Your task to perform on an android device: change your default location settings in chrome Image 0: 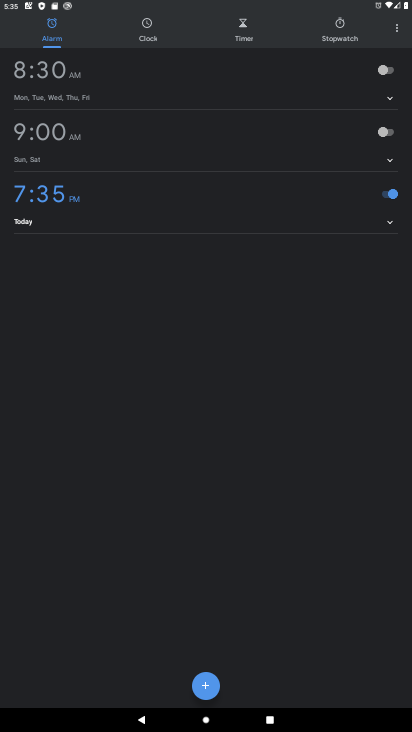
Step 0: press home button
Your task to perform on an android device: change your default location settings in chrome Image 1: 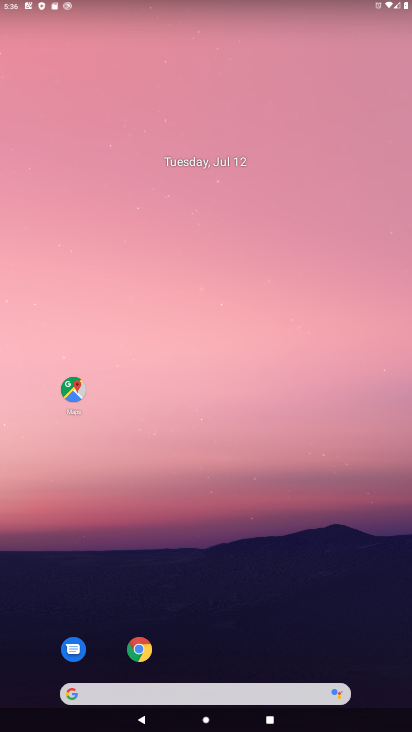
Step 1: click (140, 651)
Your task to perform on an android device: change your default location settings in chrome Image 2: 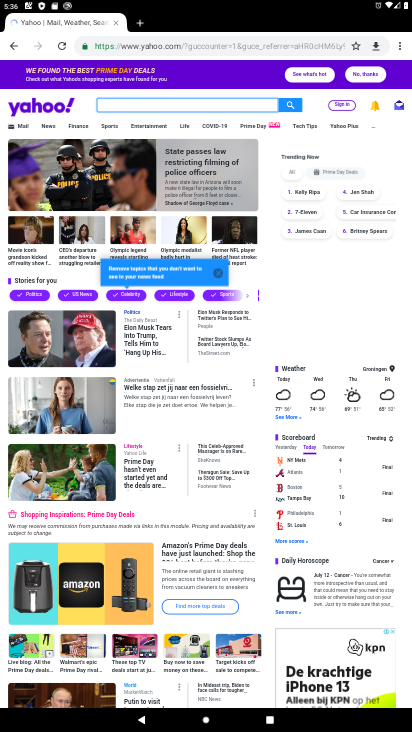
Step 2: click (399, 45)
Your task to perform on an android device: change your default location settings in chrome Image 3: 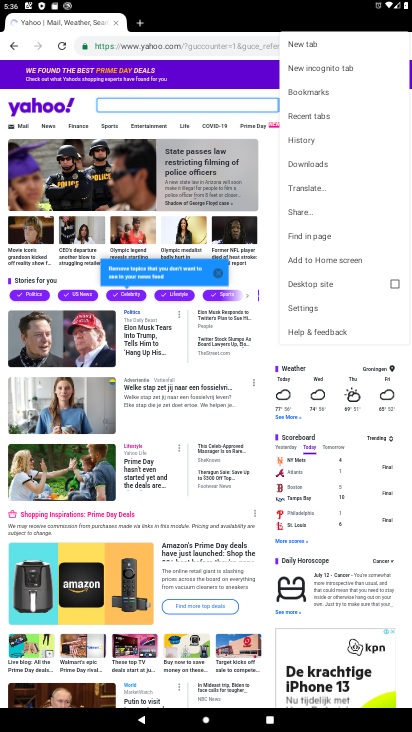
Step 3: click (312, 308)
Your task to perform on an android device: change your default location settings in chrome Image 4: 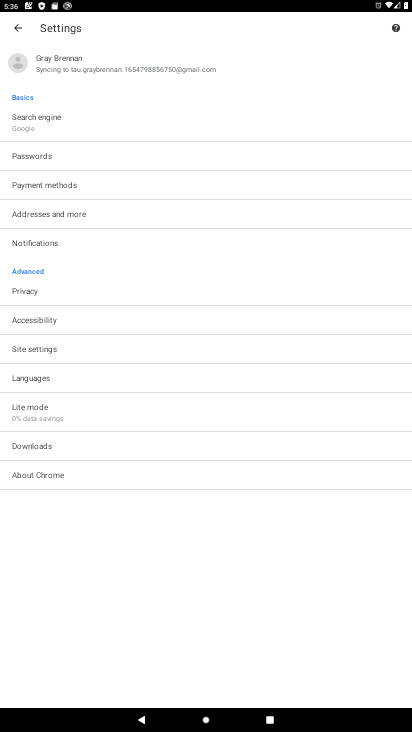
Step 4: click (36, 347)
Your task to perform on an android device: change your default location settings in chrome Image 5: 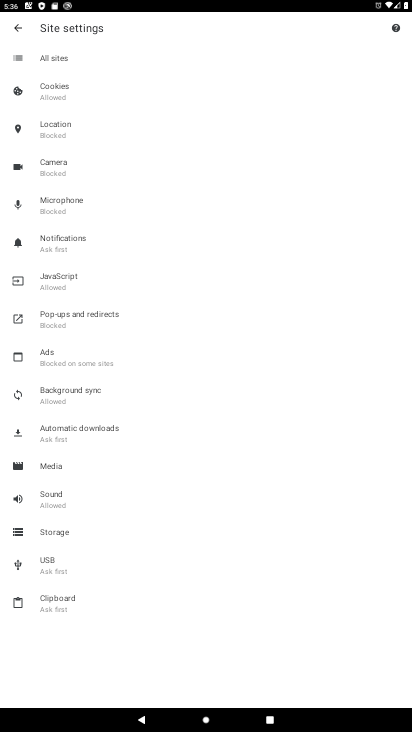
Step 5: click (57, 132)
Your task to perform on an android device: change your default location settings in chrome Image 6: 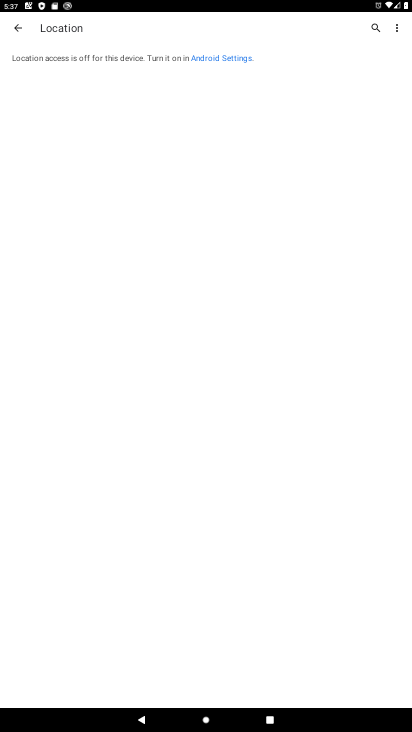
Step 6: click (222, 59)
Your task to perform on an android device: change your default location settings in chrome Image 7: 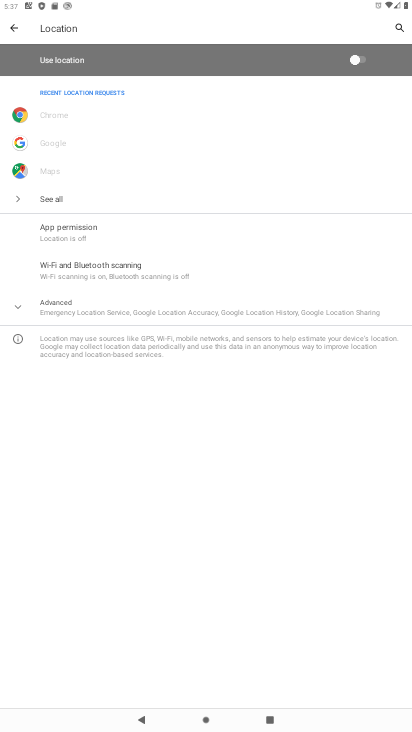
Step 7: click (359, 61)
Your task to perform on an android device: change your default location settings in chrome Image 8: 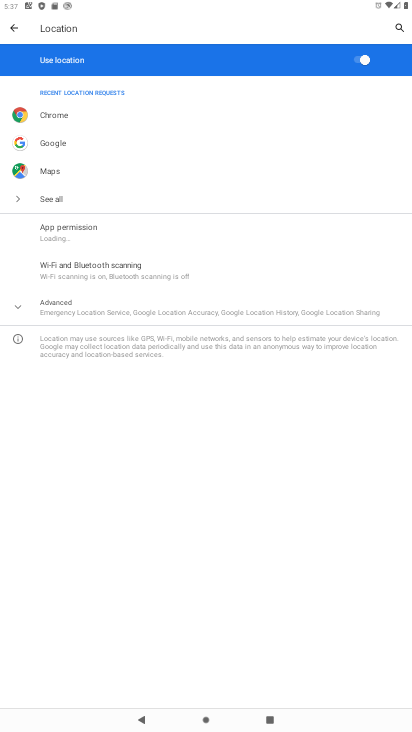
Step 8: task complete